Your task to perform on an android device: open wifi settings Image 0: 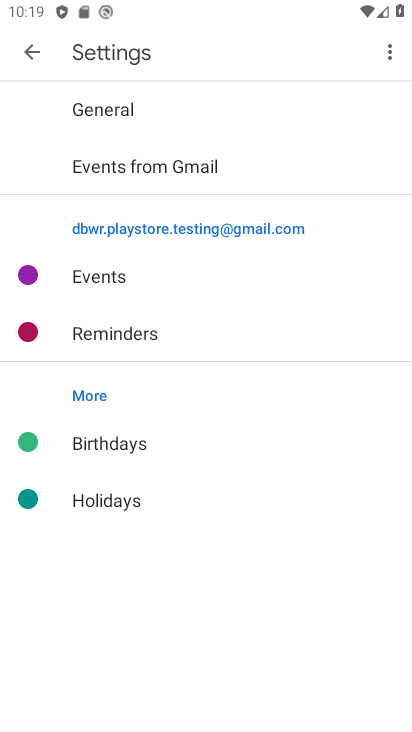
Step 0: press back button
Your task to perform on an android device: open wifi settings Image 1: 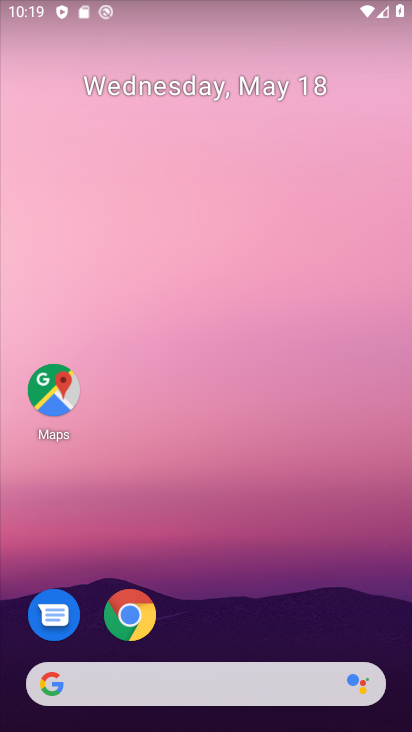
Step 1: drag from (248, 602) to (230, 14)
Your task to perform on an android device: open wifi settings Image 2: 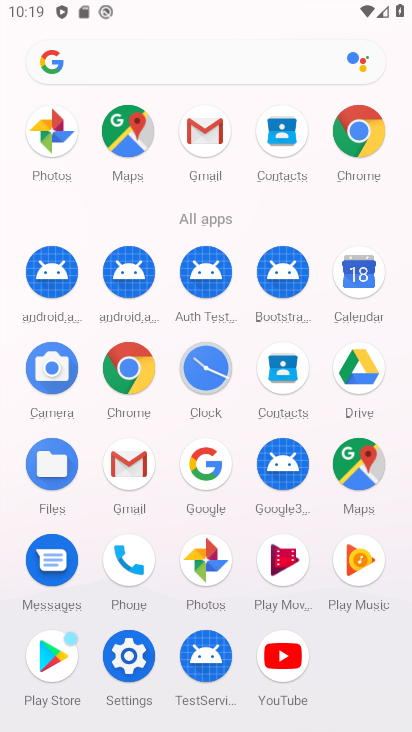
Step 2: click (125, 652)
Your task to perform on an android device: open wifi settings Image 3: 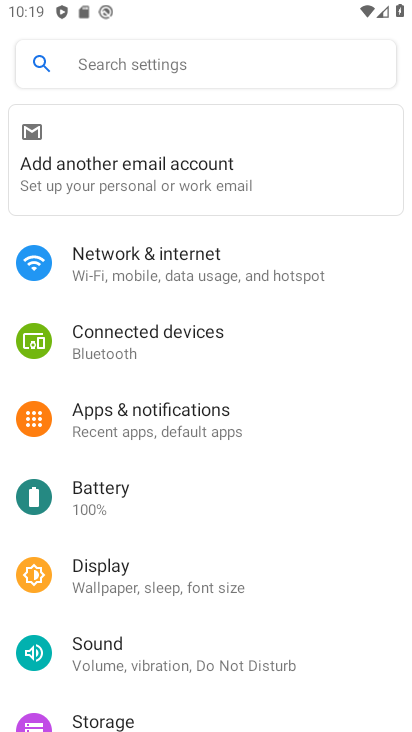
Step 3: click (156, 264)
Your task to perform on an android device: open wifi settings Image 4: 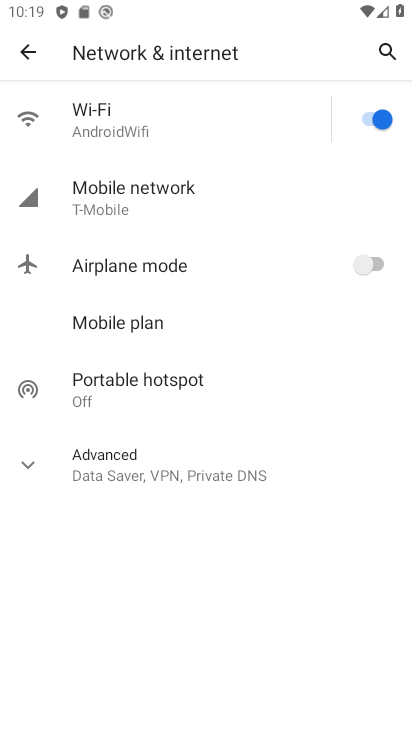
Step 4: click (128, 127)
Your task to perform on an android device: open wifi settings Image 5: 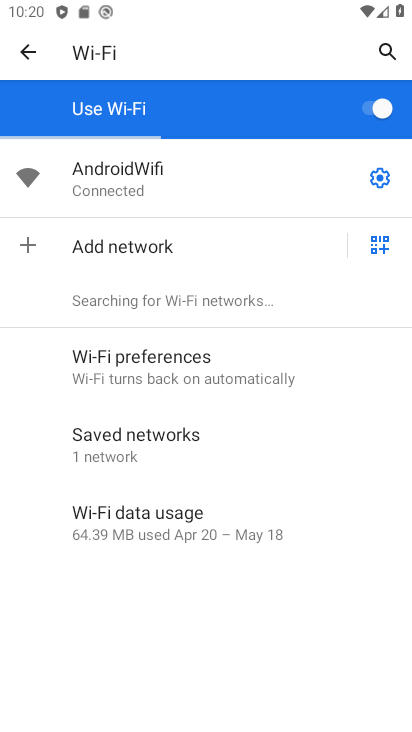
Step 5: task complete